Your task to perform on an android device: clear all cookies in the chrome app Image 0: 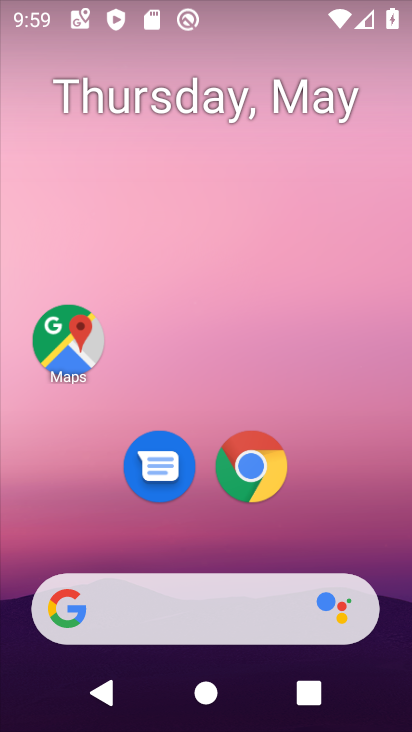
Step 0: drag from (320, 529) to (341, 217)
Your task to perform on an android device: clear all cookies in the chrome app Image 1: 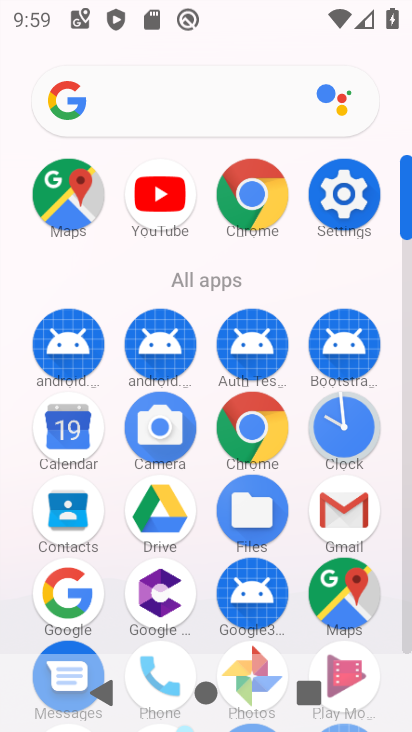
Step 1: click (262, 428)
Your task to perform on an android device: clear all cookies in the chrome app Image 2: 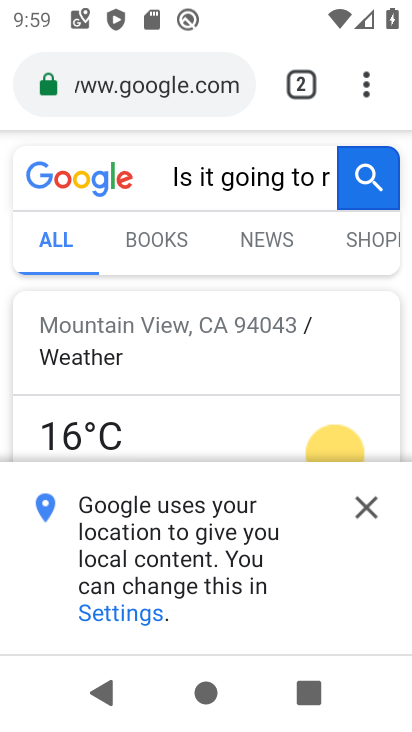
Step 2: click (371, 74)
Your task to perform on an android device: clear all cookies in the chrome app Image 3: 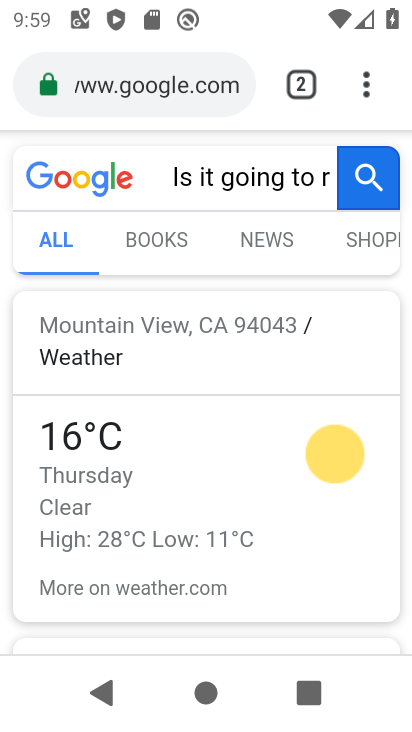
Step 3: click (376, 77)
Your task to perform on an android device: clear all cookies in the chrome app Image 4: 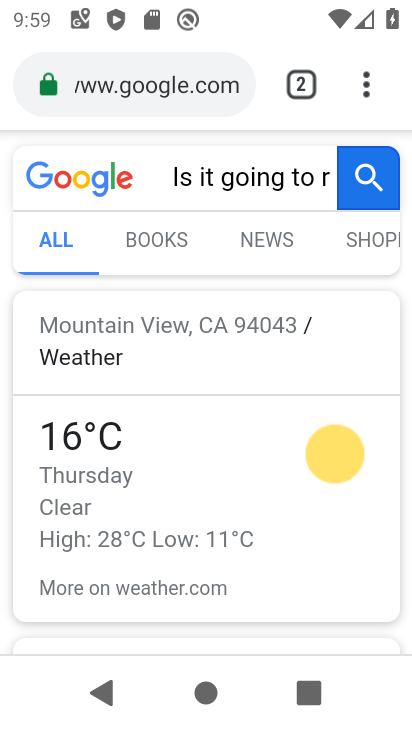
Step 4: click (373, 79)
Your task to perform on an android device: clear all cookies in the chrome app Image 5: 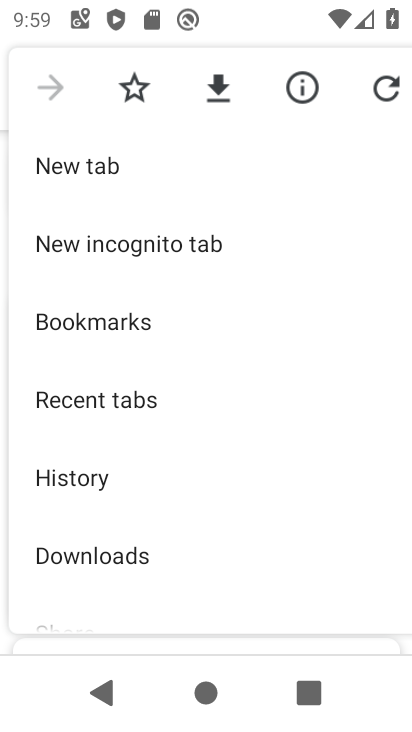
Step 5: drag from (152, 512) to (177, 190)
Your task to perform on an android device: clear all cookies in the chrome app Image 6: 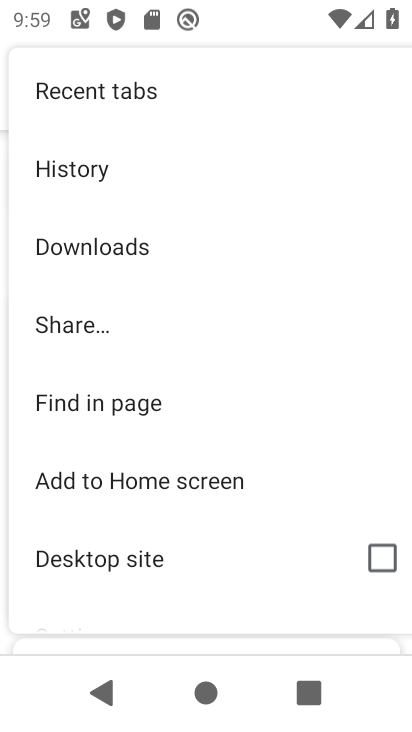
Step 6: drag from (186, 513) to (211, 198)
Your task to perform on an android device: clear all cookies in the chrome app Image 7: 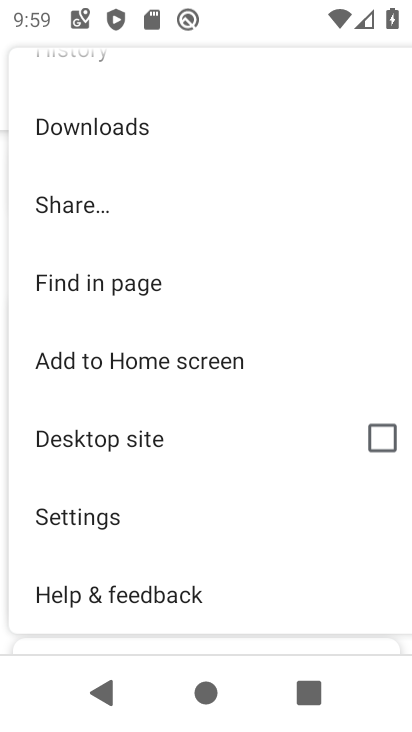
Step 7: click (119, 514)
Your task to perform on an android device: clear all cookies in the chrome app Image 8: 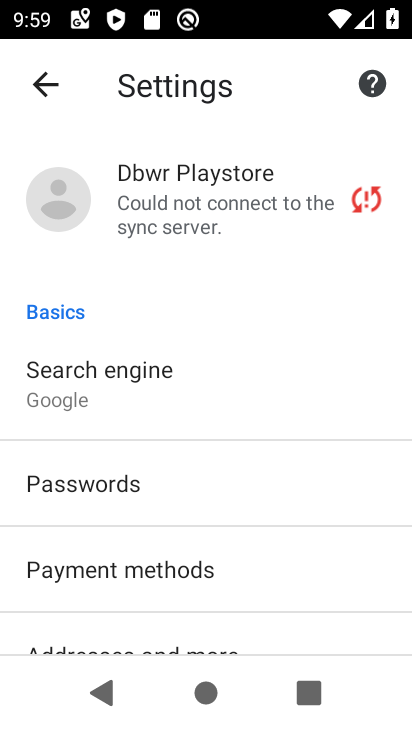
Step 8: drag from (131, 519) to (155, 252)
Your task to perform on an android device: clear all cookies in the chrome app Image 9: 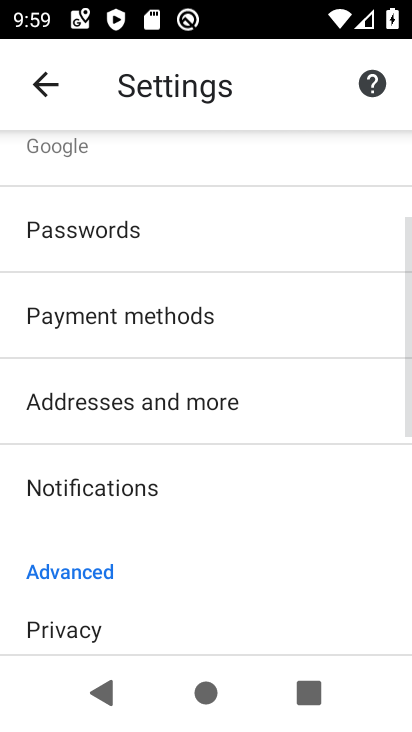
Step 9: drag from (165, 546) to (187, 387)
Your task to perform on an android device: clear all cookies in the chrome app Image 10: 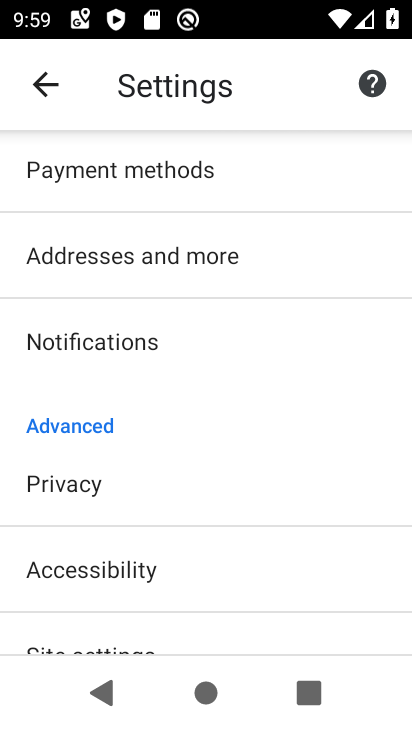
Step 10: click (98, 486)
Your task to perform on an android device: clear all cookies in the chrome app Image 11: 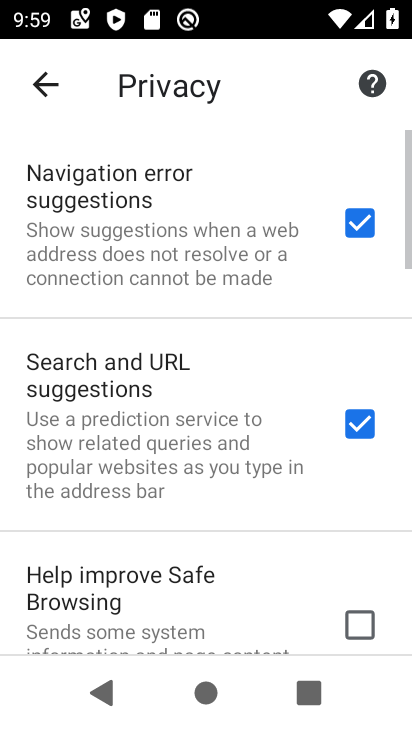
Step 11: drag from (146, 557) to (205, 193)
Your task to perform on an android device: clear all cookies in the chrome app Image 12: 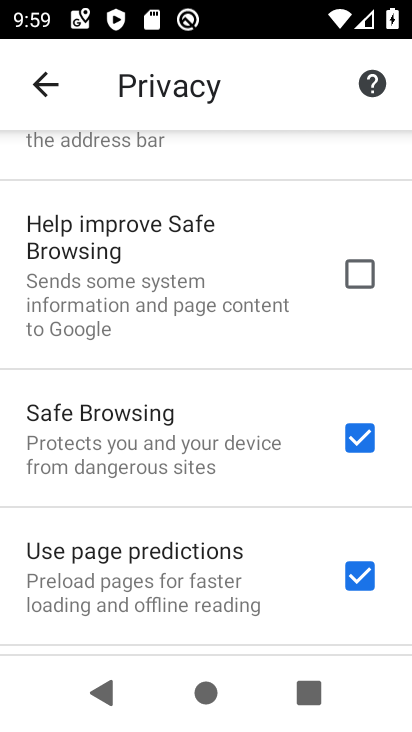
Step 12: drag from (164, 531) to (241, 135)
Your task to perform on an android device: clear all cookies in the chrome app Image 13: 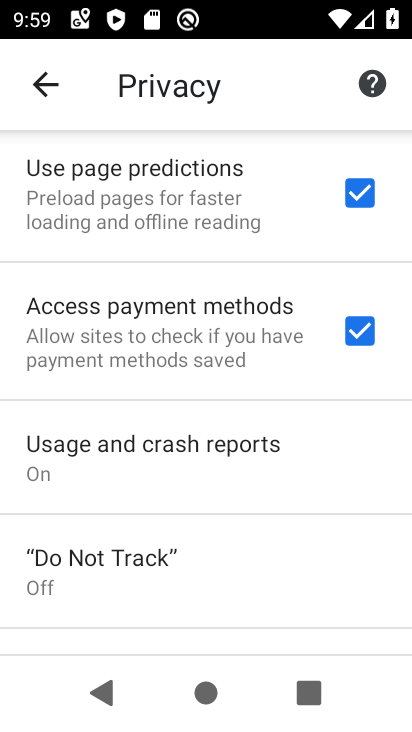
Step 13: drag from (200, 507) to (199, 215)
Your task to perform on an android device: clear all cookies in the chrome app Image 14: 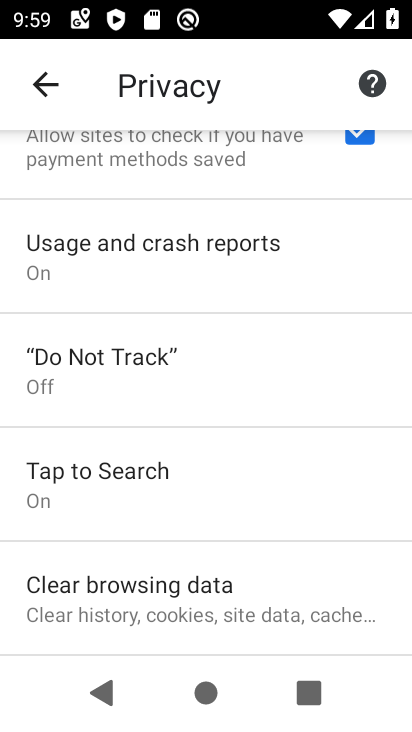
Step 14: click (142, 593)
Your task to perform on an android device: clear all cookies in the chrome app Image 15: 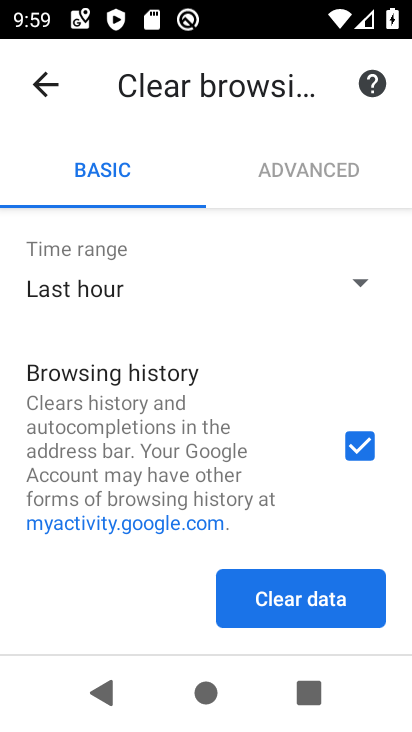
Step 15: click (301, 601)
Your task to perform on an android device: clear all cookies in the chrome app Image 16: 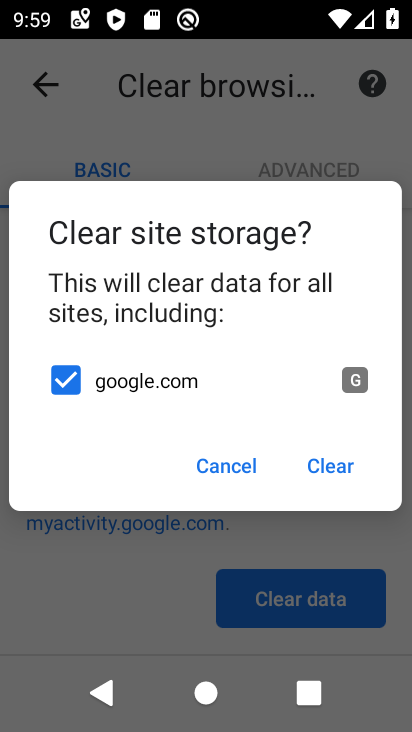
Step 16: click (317, 465)
Your task to perform on an android device: clear all cookies in the chrome app Image 17: 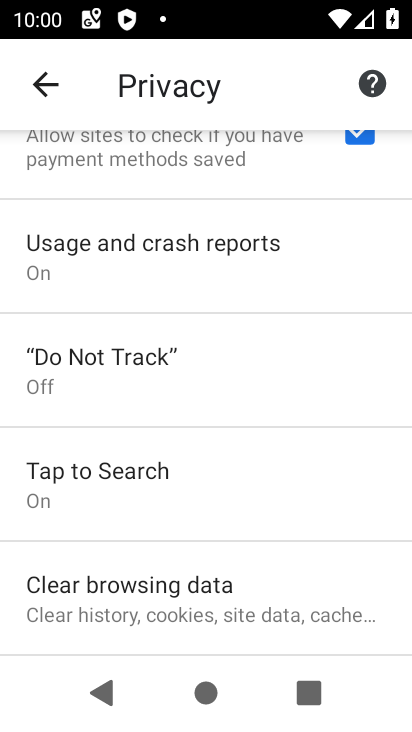
Step 17: task complete